Your task to perform on an android device: open app "Messages" (install if not already installed) Image 0: 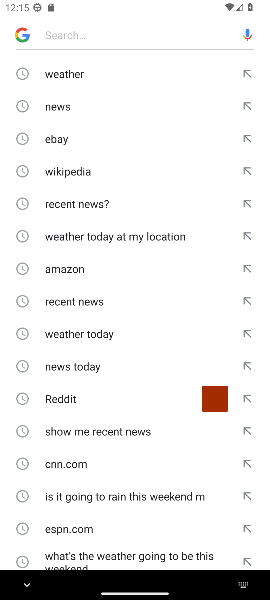
Step 0: press home button
Your task to perform on an android device: open app "Messages" (install if not already installed) Image 1: 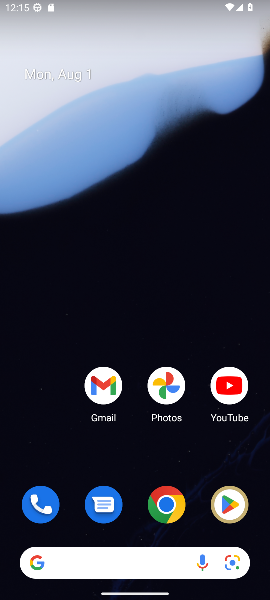
Step 1: drag from (158, 569) to (141, 79)
Your task to perform on an android device: open app "Messages" (install if not already installed) Image 2: 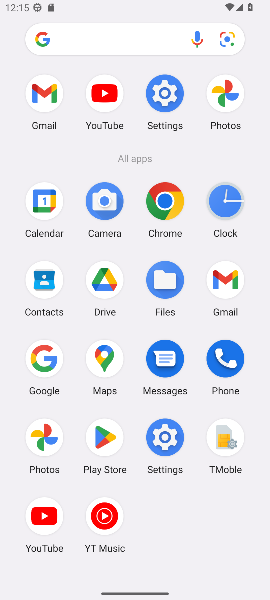
Step 2: click (105, 450)
Your task to perform on an android device: open app "Messages" (install if not already installed) Image 3: 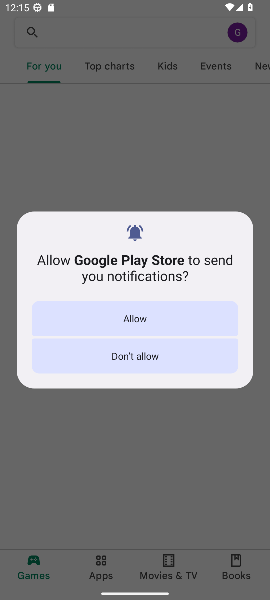
Step 3: click (117, 349)
Your task to perform on an android device: open app "Messages" (install if not already installed) Image 4: 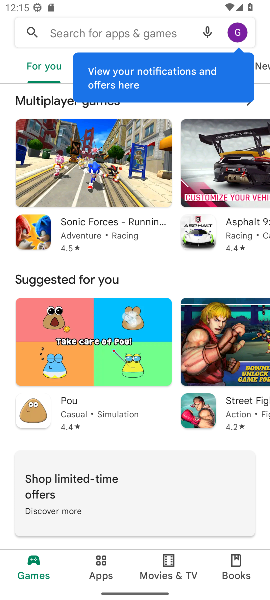
Step 4: click (162, 30)
Your task to perform on an android device: open app "Messages" (install if not already installed) Image 5: 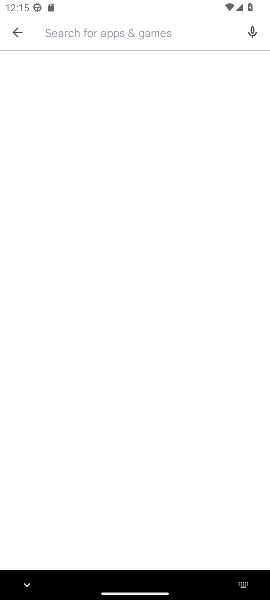
Step 5: type "messages"
Your task to perform on an android device: open app "Messages" (install if not already installed) Image 6: 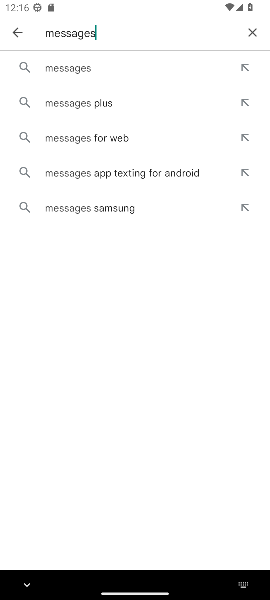
Step 6: click (97, 60)
Your task to perform on an android device: open app "Messages" (install if not already installed) Image 7: 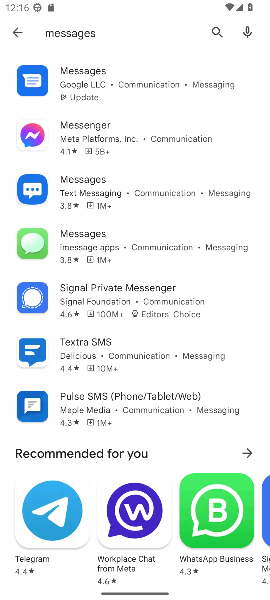
Step 7: click (188, 77)
Your task to perform on an android device: open app "Messages" (install if not already installed) Image 8: 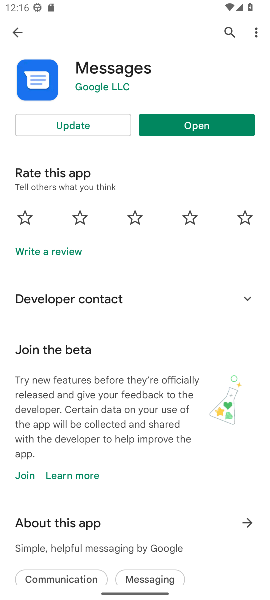
Step 8: click (247, 117)
Your task to perform on an android device: open app "Messages" (install if not already installed) Image 9: 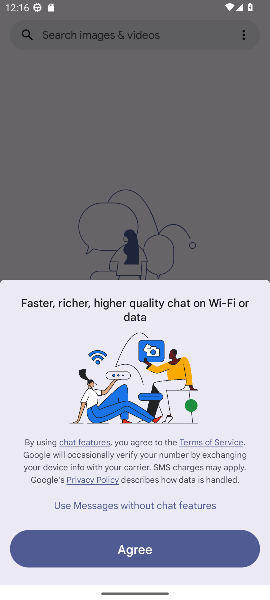
Step 9: task complete